Your task to perform on an android device: find snoozed emails in the gmail app Image 0: 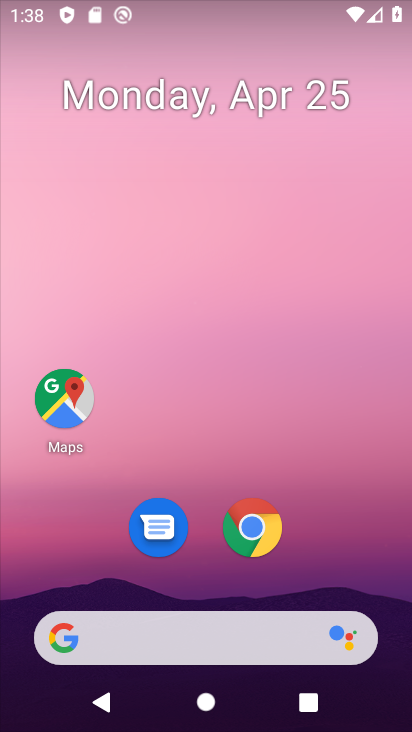
Step 0: drag from (388, 635) to (280, 51)
Your task to perform on an android device: find snoozed emails in the gmail app Image 1: 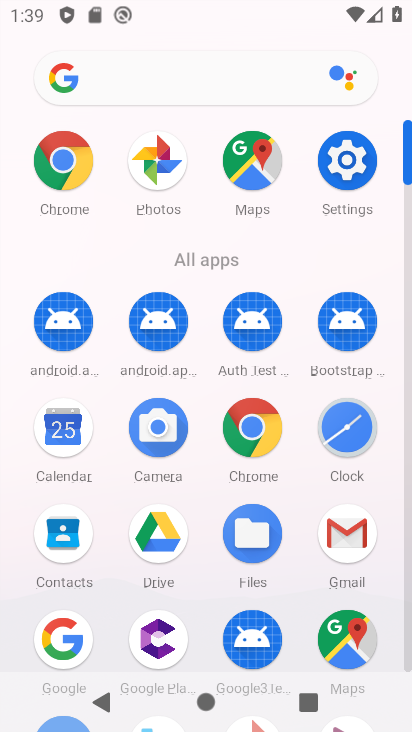
Step 1: click (344, 542)
Your task to perform on an android device: find snoozed emails in the gmail app Image 2: 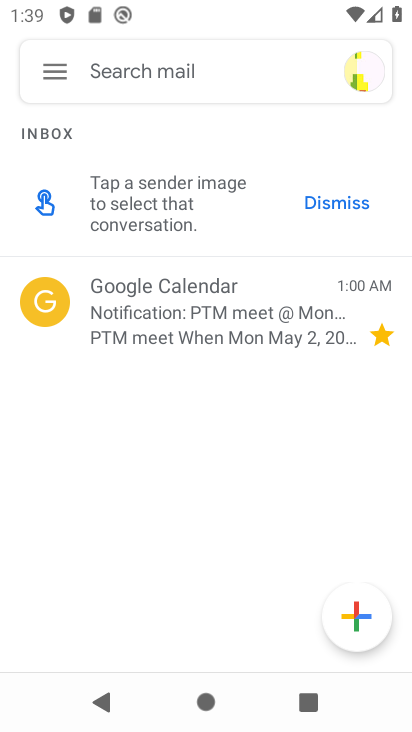
Step 2: click (53, 83)
Your task to perform on an android device: find snoozed emails in the gmail app Image 3: 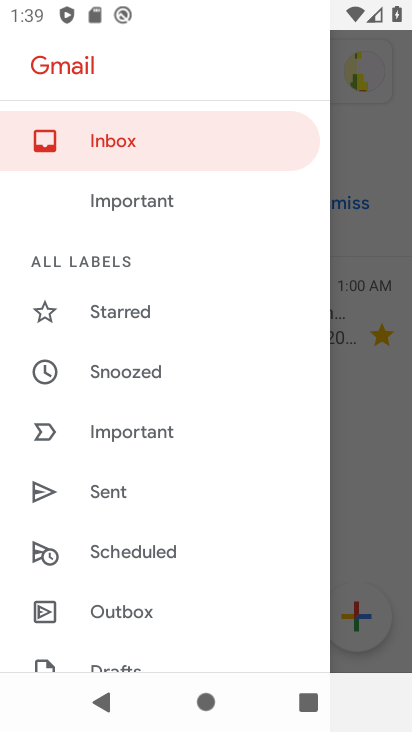
Step 3: click (200, 385)
Your task to perform on an android device: find snoozed emails in the gmail app Image 4: 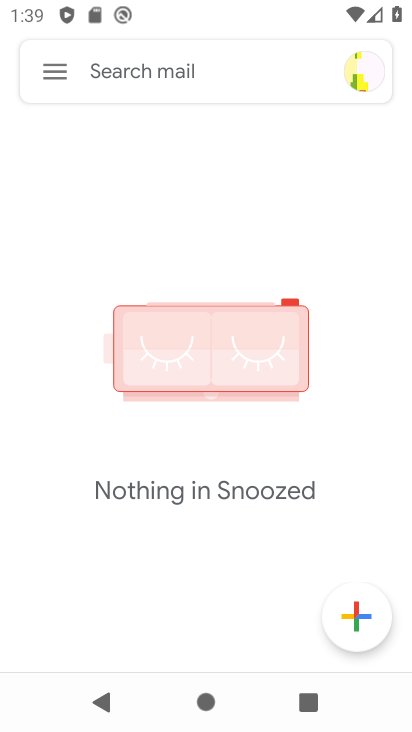
Step 4: task complete